Your task to perform on an android device: Go to Yahoo.com Image 0: 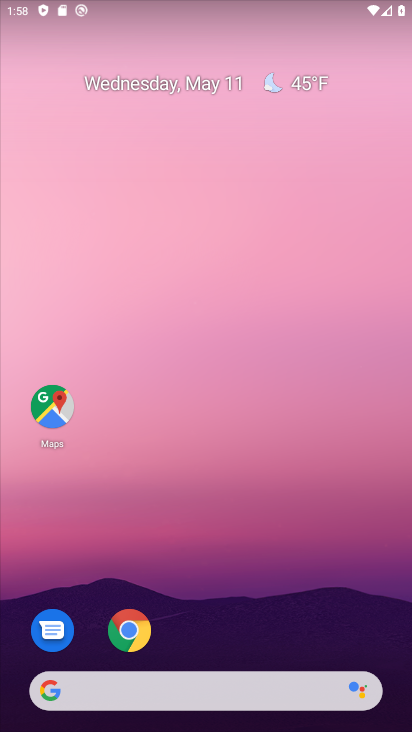
Step 0: click (128, 635)
Your task to perform on an android device: Go to Yahoo.com Image 1: 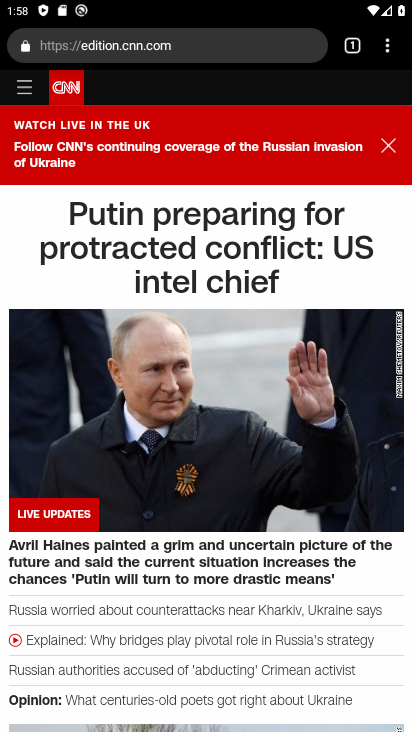
Step 1: click (389, 52)
Your task to perform on an android device: Go to Yahoo.com Image 2: 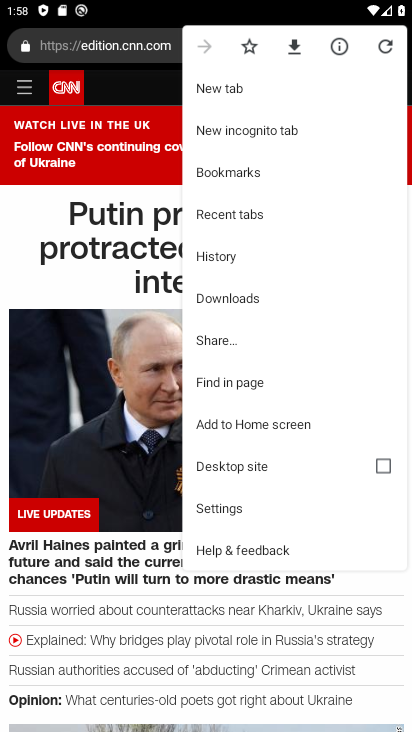
Step 2: click (233, 87)
Your task to perform on an android device: Go to Yahoo.com Image 3: 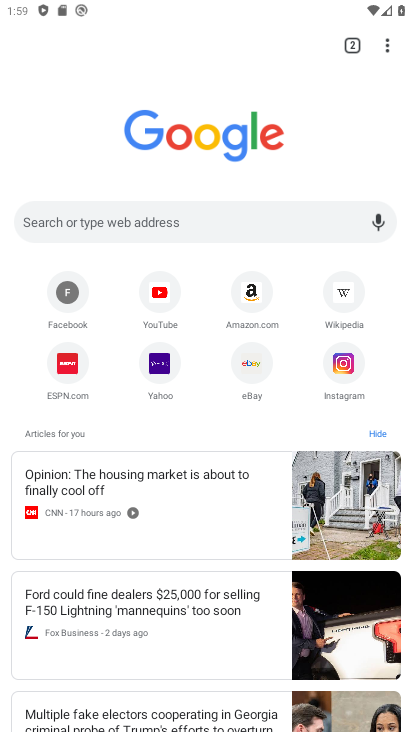
Step 3: click (161, 367)
Your task to perform on an android device: Go to Yahoo.com Image 4: 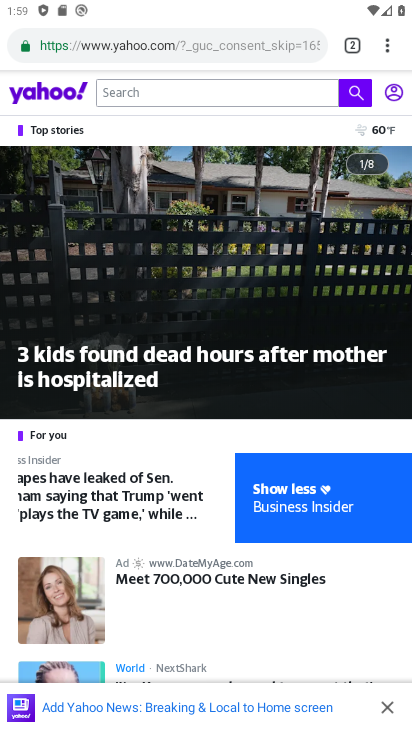
Step 4: task complete